Your task to perform on an android device: open app "Firefox Browser" (install if not already installed) Image 0: 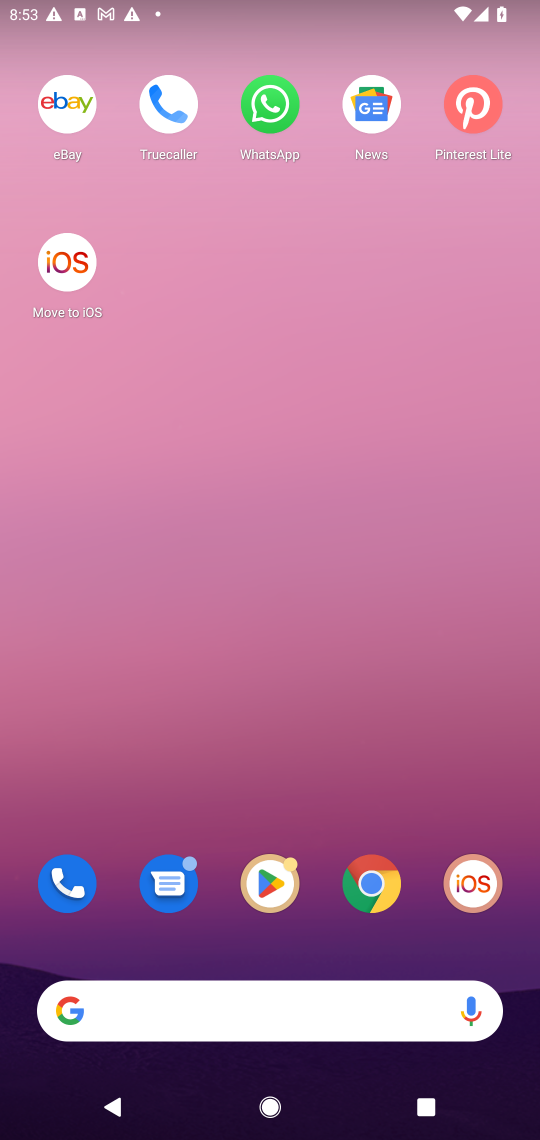
Step 0: click (256, 870)
Your task to perform on an android device: open app "Firefox Browser" (install if not already installed) Image 1: 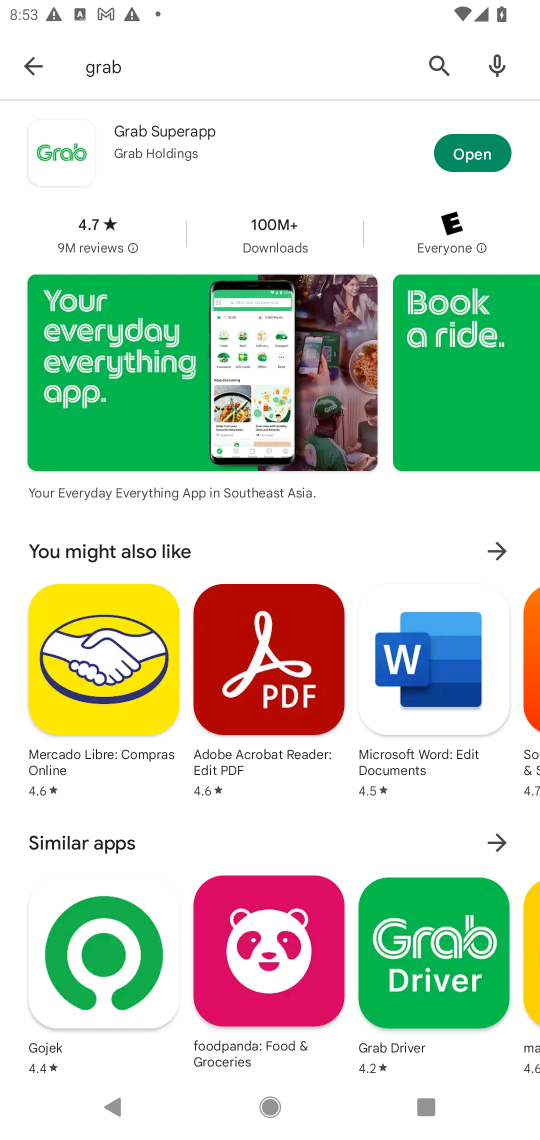
Step 1: click (434, 66)
Your task to perform on an android device: open app "Firefox Browser" (install if not already installed) Image 2: 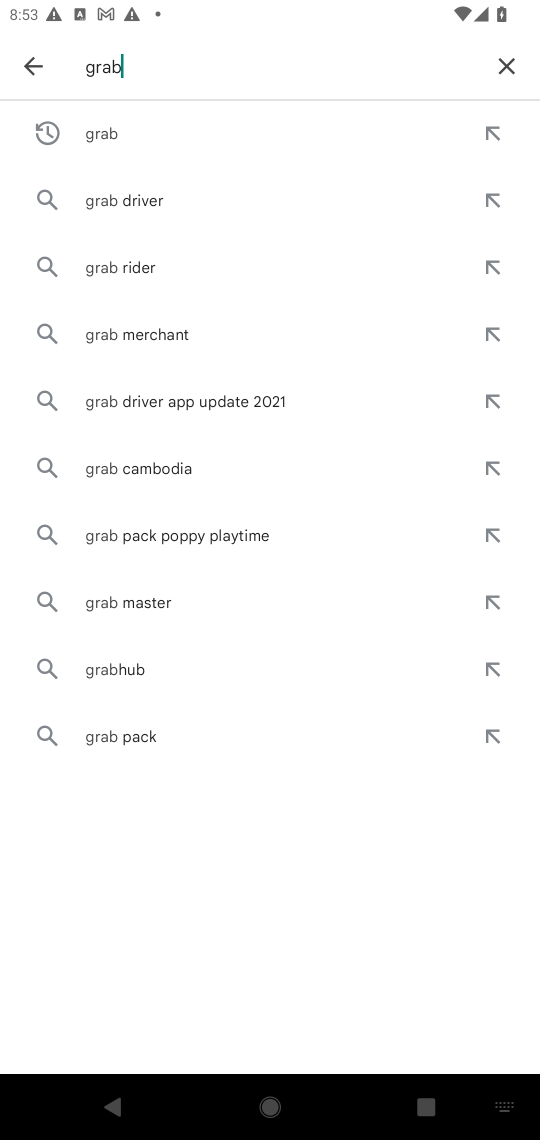
Step 2: click (509, 64)
Your task to perform on an android device: open app "Firefox Browser" (install if not already installed) Image 3: 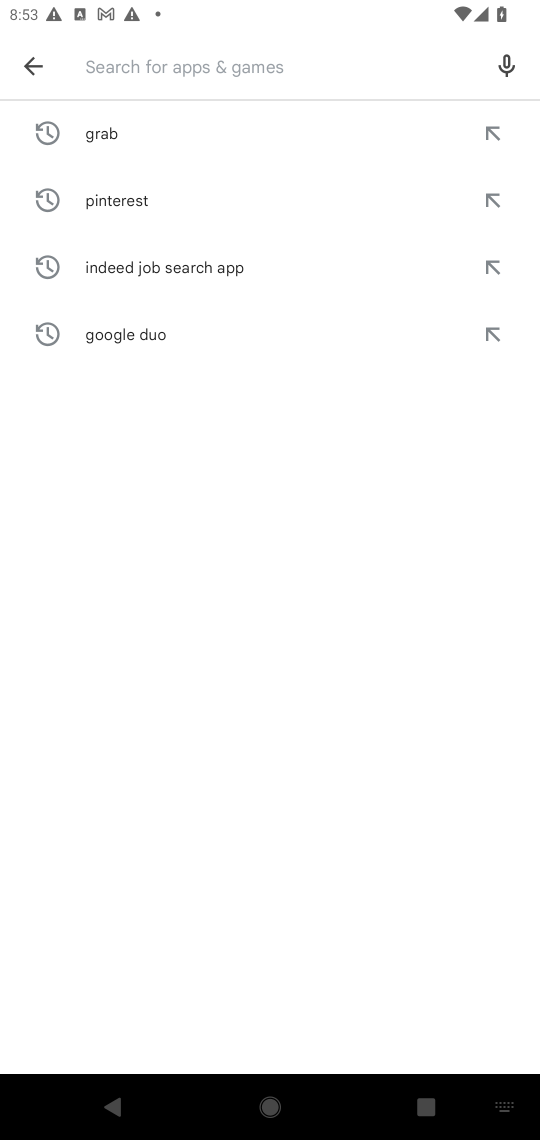
Step 3: type "Firefox Browser"
Your task to perform on an android device: open app "Firefox Browser" (install if not already installed) Image 4: 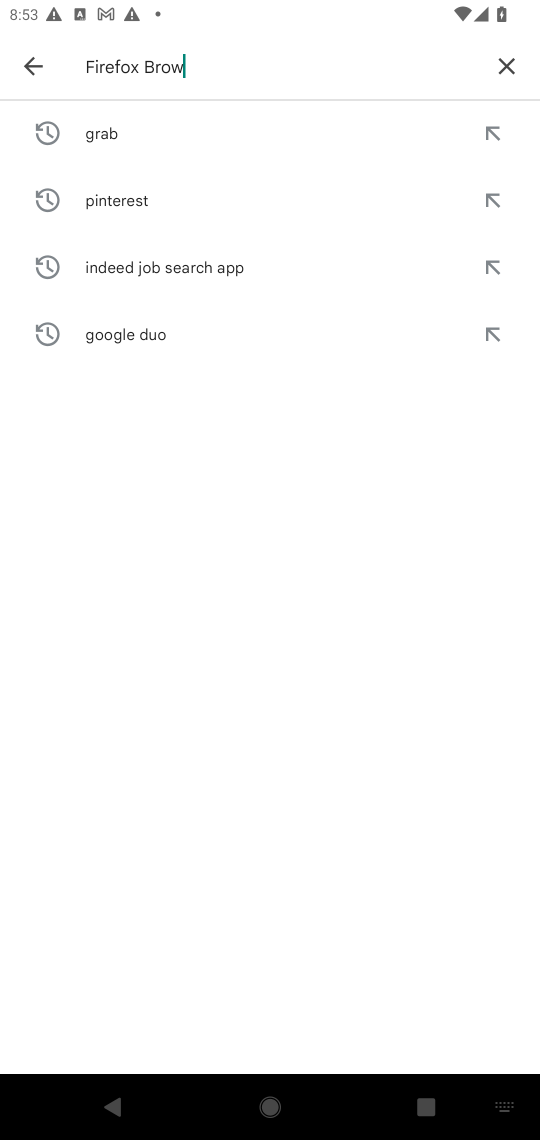
Step 4: type ""
Your task to perform on an android device: open app "Firefox Browser" (install if not already installed) Image 5: 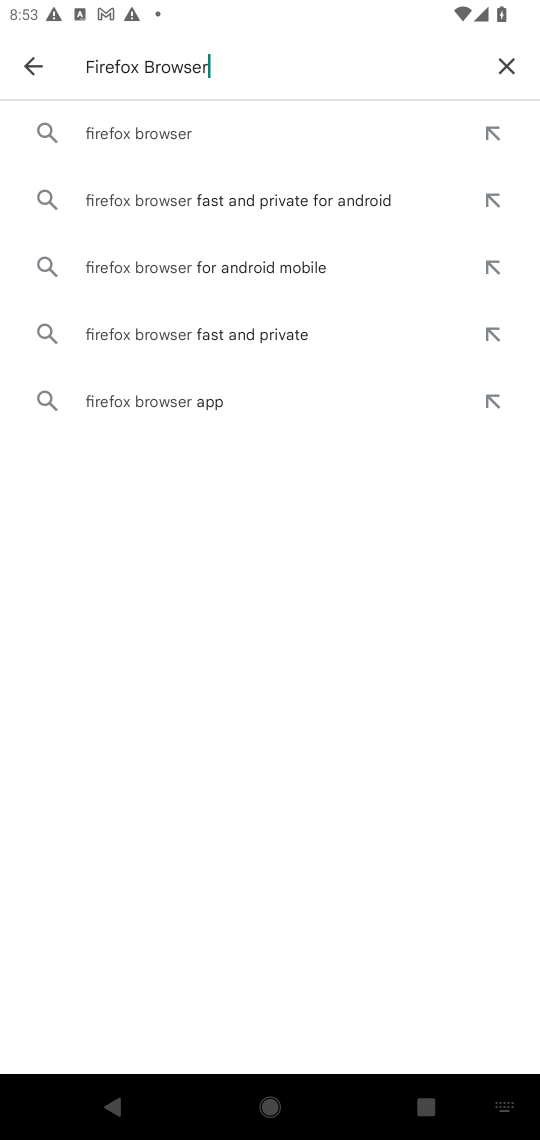
Step 5: click (150, 148)
Your task to perform on an android device: open app "Firefox Browser" (install if not already installed) Image 6: 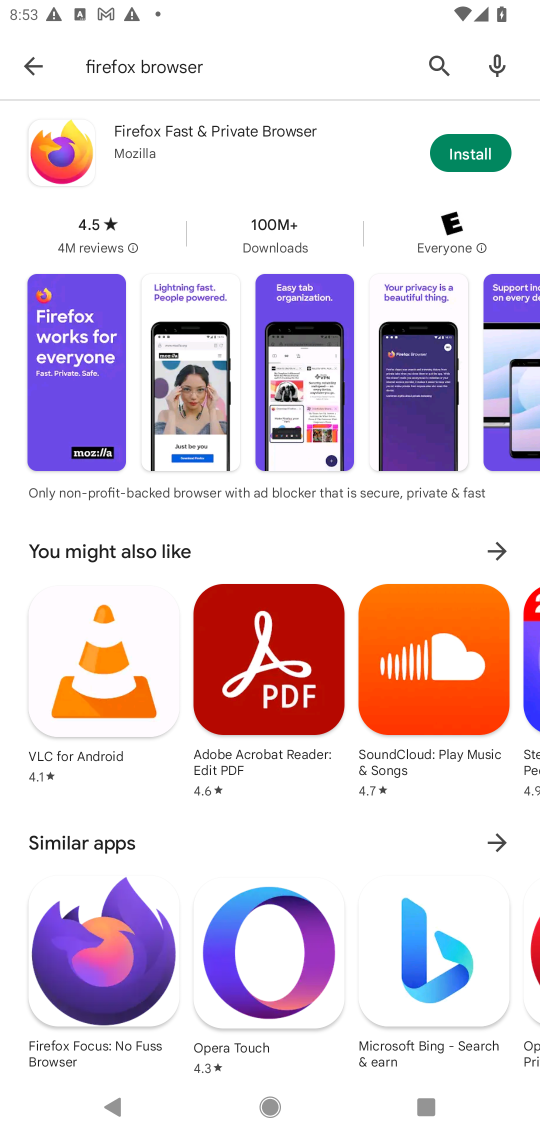
Step 6: click (492, 147)
Your task to perform on an android device: open app "Firefox Browser" (install if not already installed) Image 7: 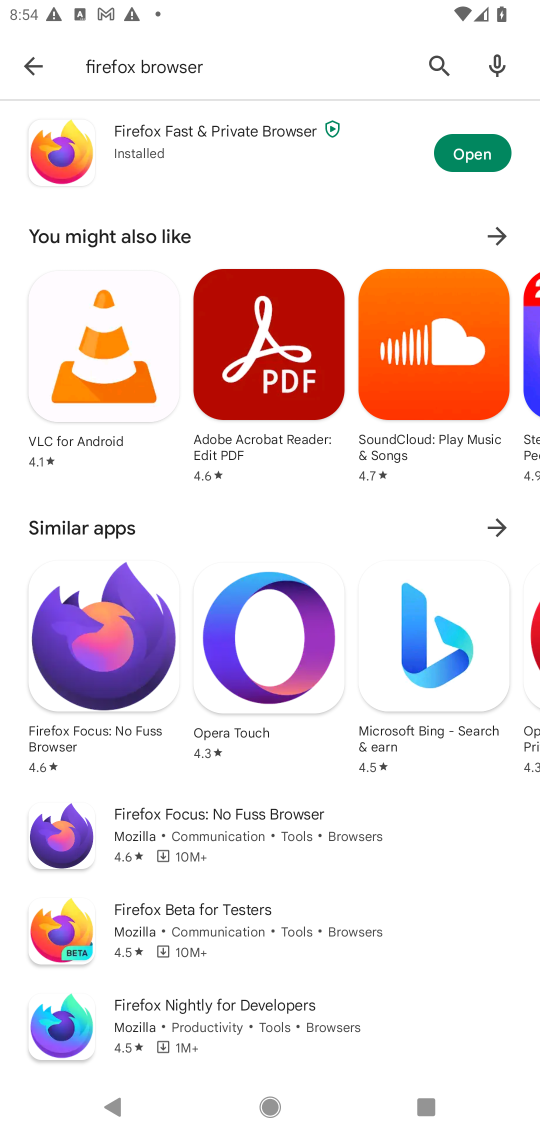
Step 7: click (456, 155)
Your task to perform on an android device: open app "Firefox Browser" (install if not already installed) Image 8: 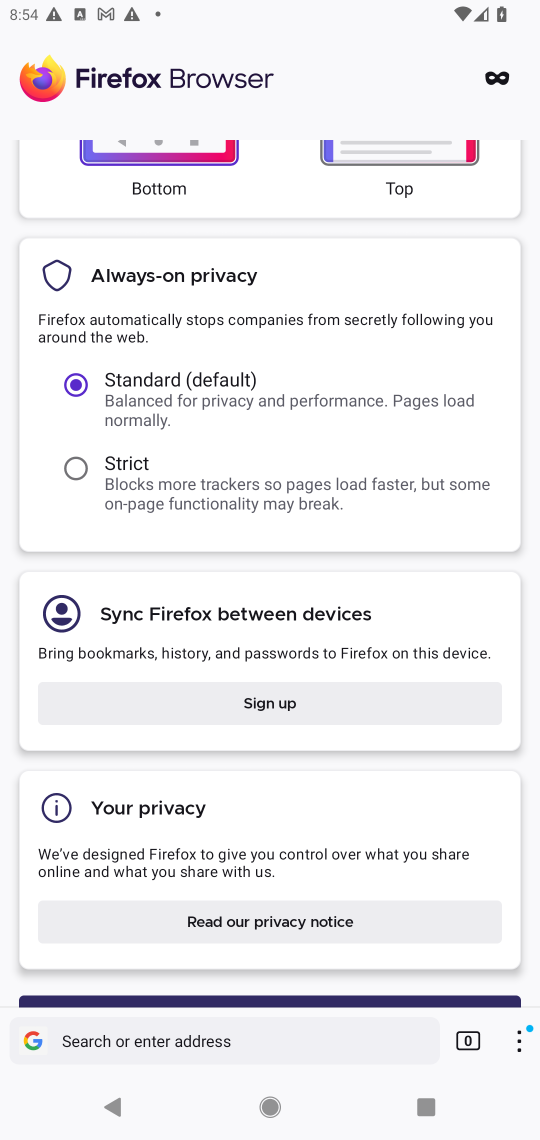
Step 8: task complete